Your task to perform on an android device: toggle notification dots Image 0: 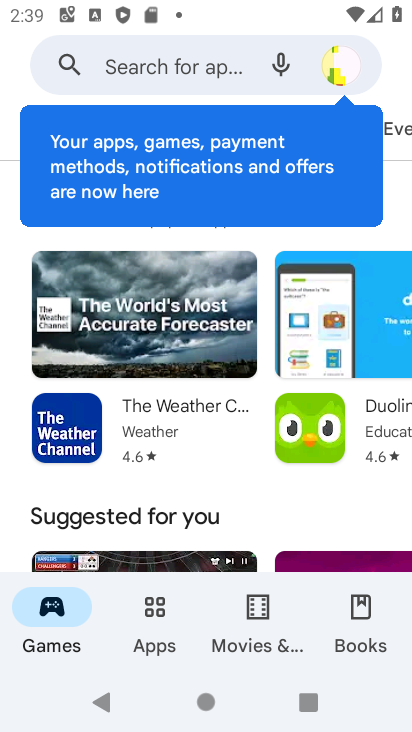
Step 0: press home button
Your task to perform on an android device: toggle notification dots Image 1: 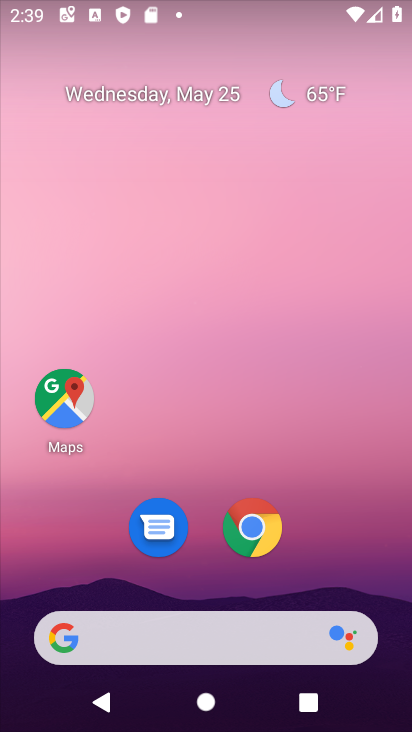
Step 1: drag from (321, 577) to (317, 94)
Your task to perform on an android device: toggle notification dots Image 2: 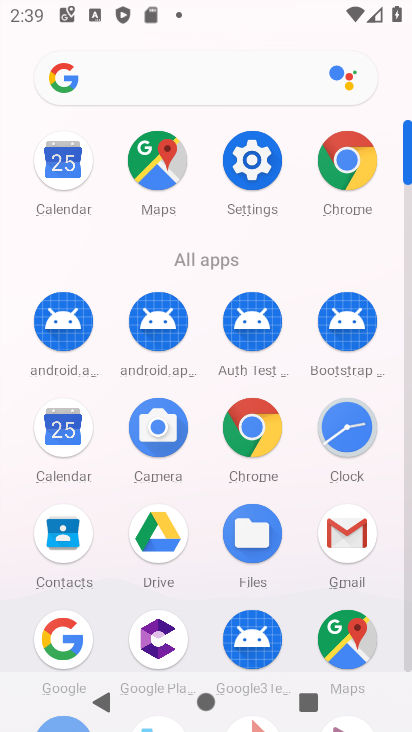
Step 2: click (243, 158)
Your task to perform on an android device: toggle notification dots Image 3: 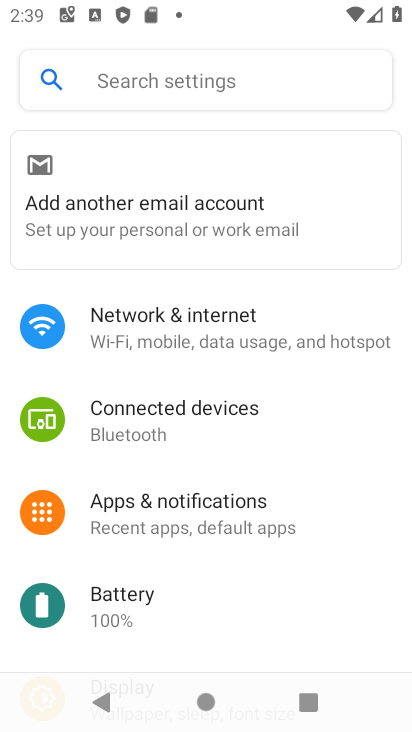
Step 3: click (263, 533)
Your task to perform on an android device: toggle notification dots Image 4: 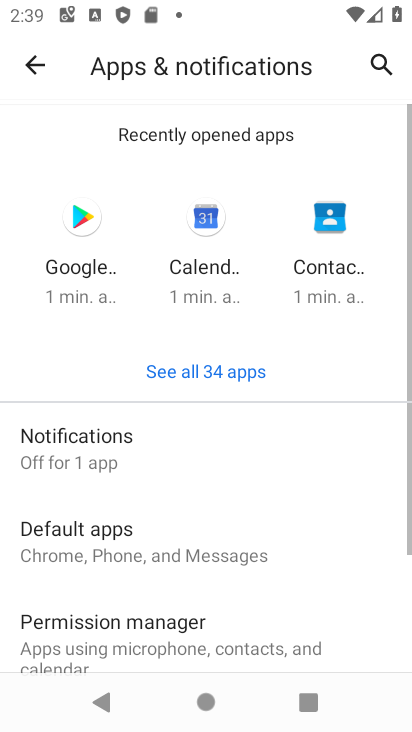
Step 4: drag from (262, 633) to (322, 167)
Your task to perform on an android device: toggle notification dots Image 5: 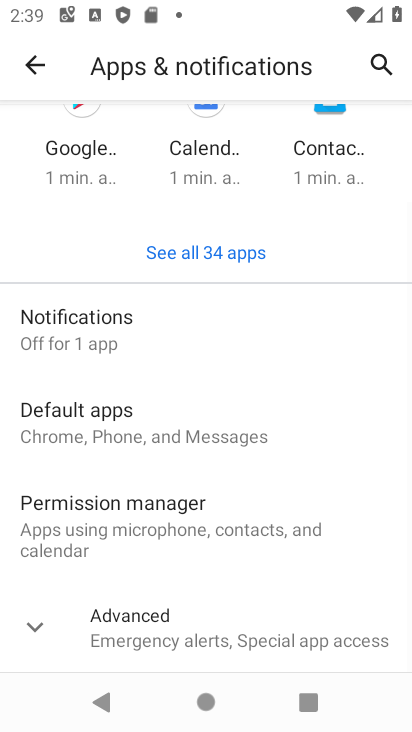
Step 5: click (246, 631)
Your task to perform on an android device: toggle notification dots Image 6: 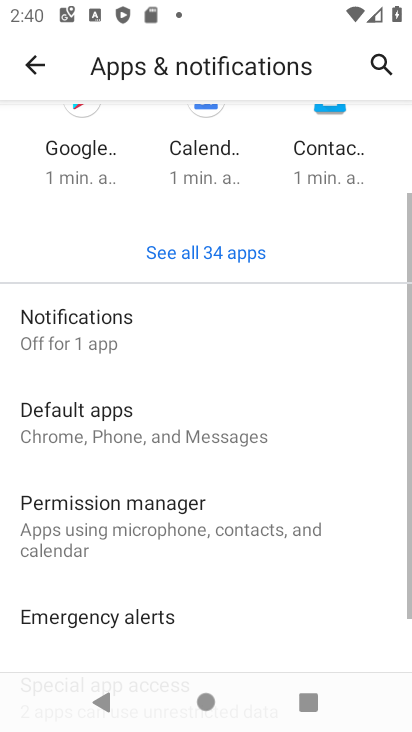
Step 6: drag from (246, 631) to (244, 504)
Your task to perform on an android device: toggle notification dots Image 7: 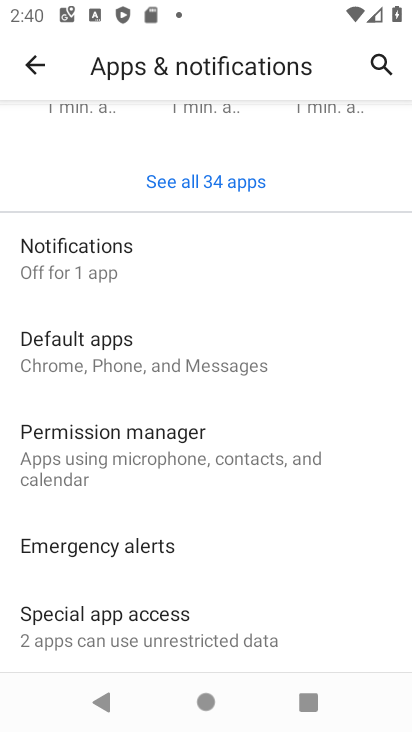
Step 7: click (136, 261)
Your task to perform on an android device: toggle notification dots Image 8: 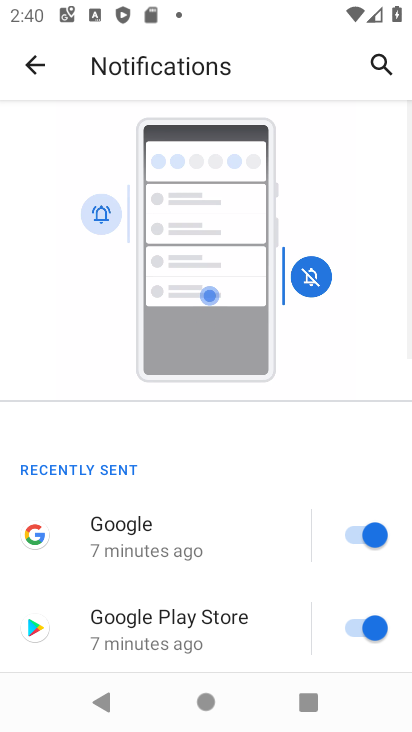
Step 8: drag from (238, 629) to (243, 73)
Your task to perform on an android device: toggle notification dots Image 9: 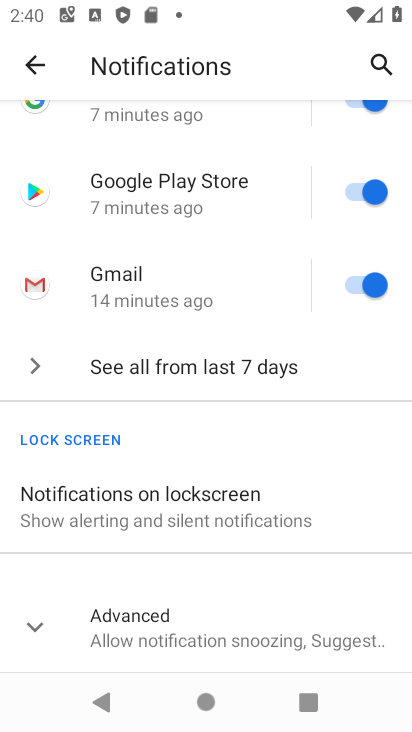
Step 9: click (201, 630)
Your task to perform on an android device: toggle notification dots Image 10: 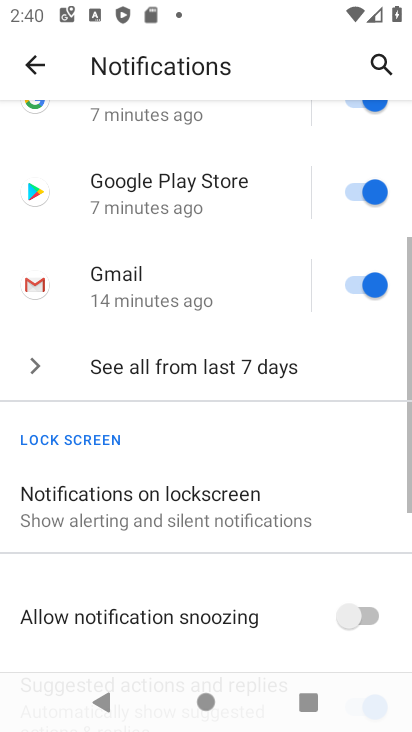
Step 10: drag from (213, 587) to (287, 56)
Your task to perform on an android device: toggle notification dots Image 11: 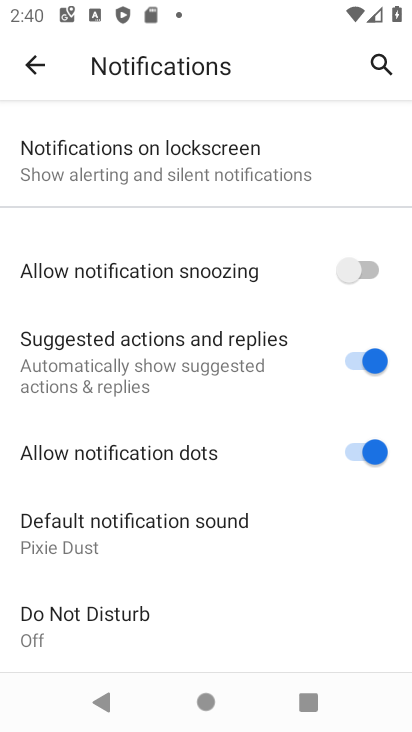
Step 11: click (359, 453)
Your task to perform on an android device: toggle notification dots Image 12: 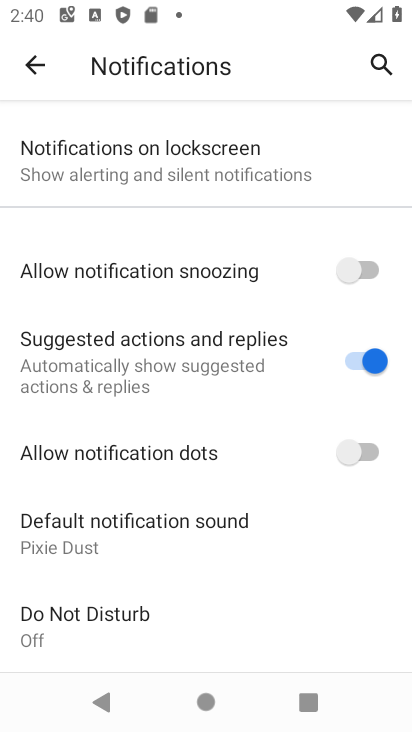
Step 12: task complete